Your task to perform on an android device: View the shopping cart on newegg.com. Image 0: 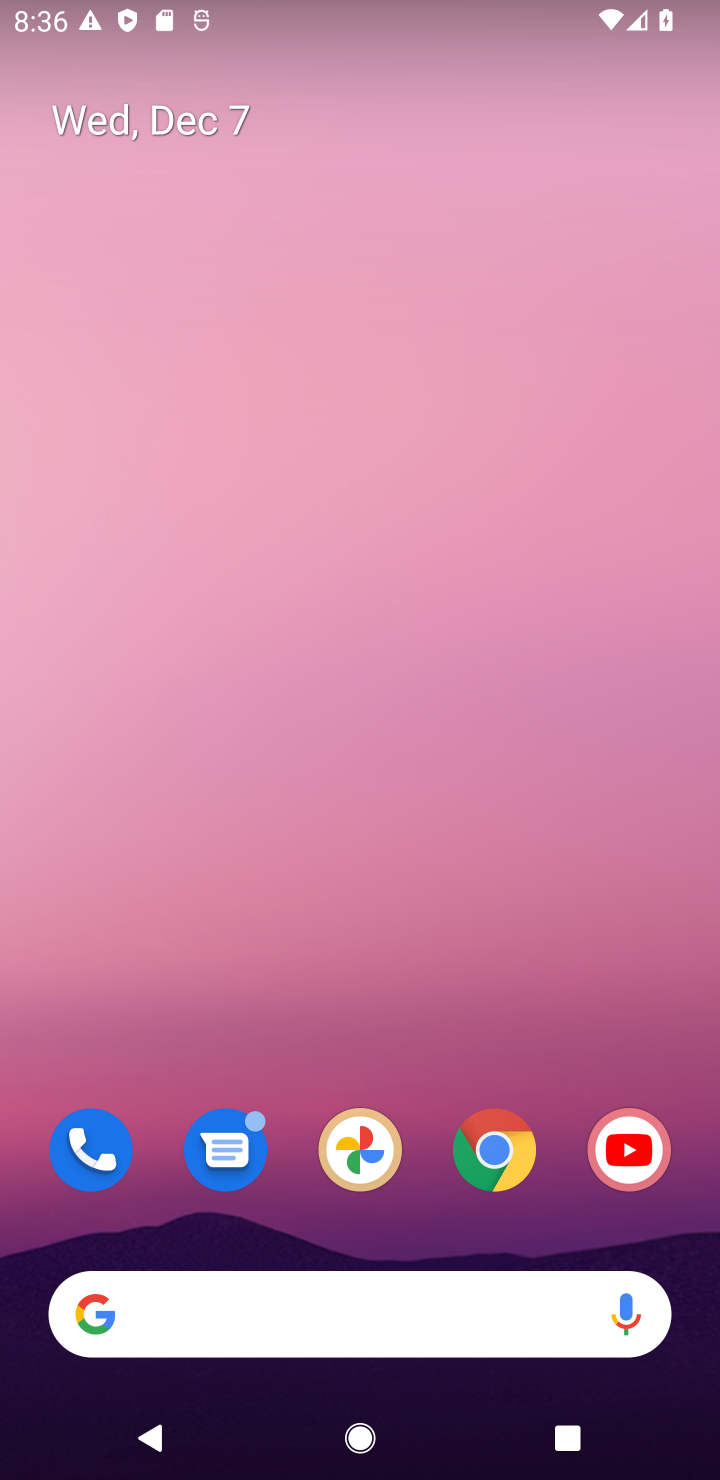
Step 0: click (512, 1154)
Your task to perform on an android device: View the shopping cart on newegg.com. Image 1: 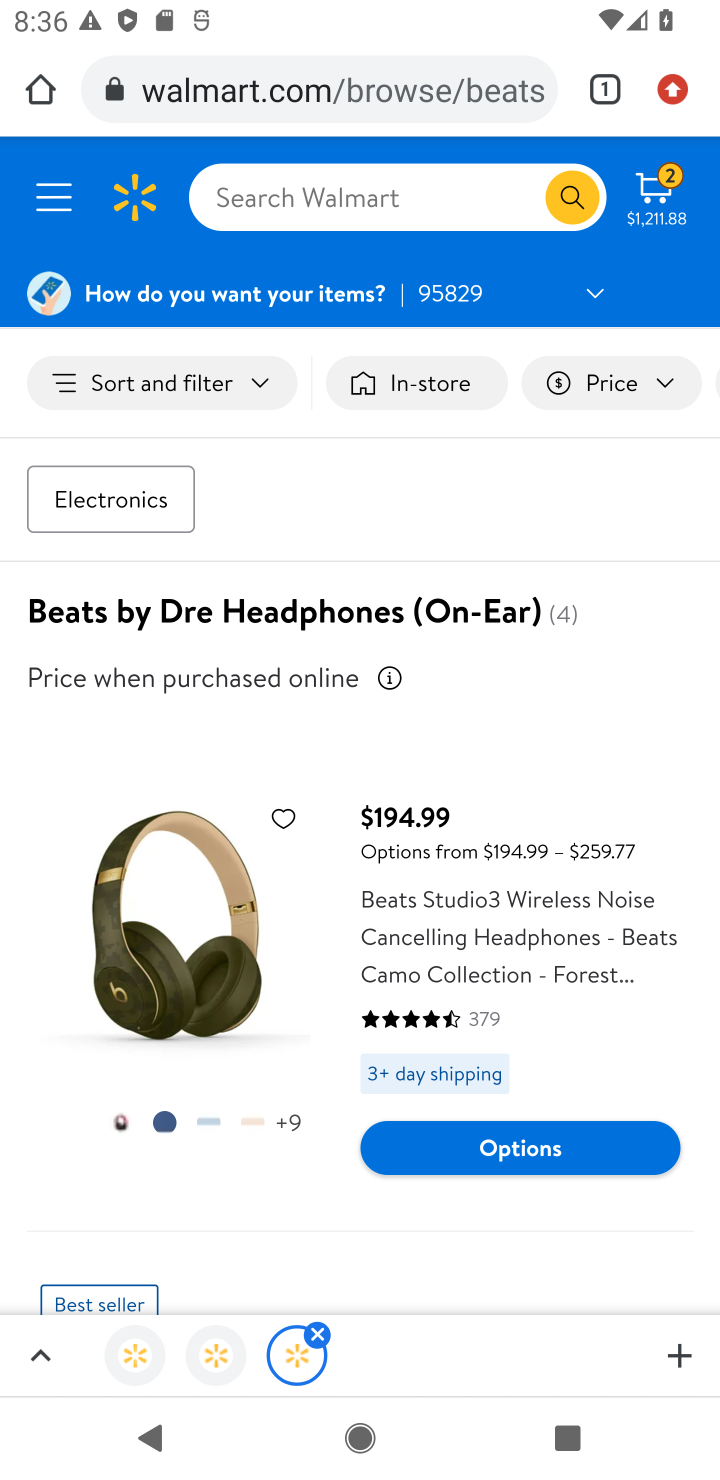
Step 1: click (361, 87)
Your task to perform on an android device: View the shopping cart on newegg.com. Image 2: 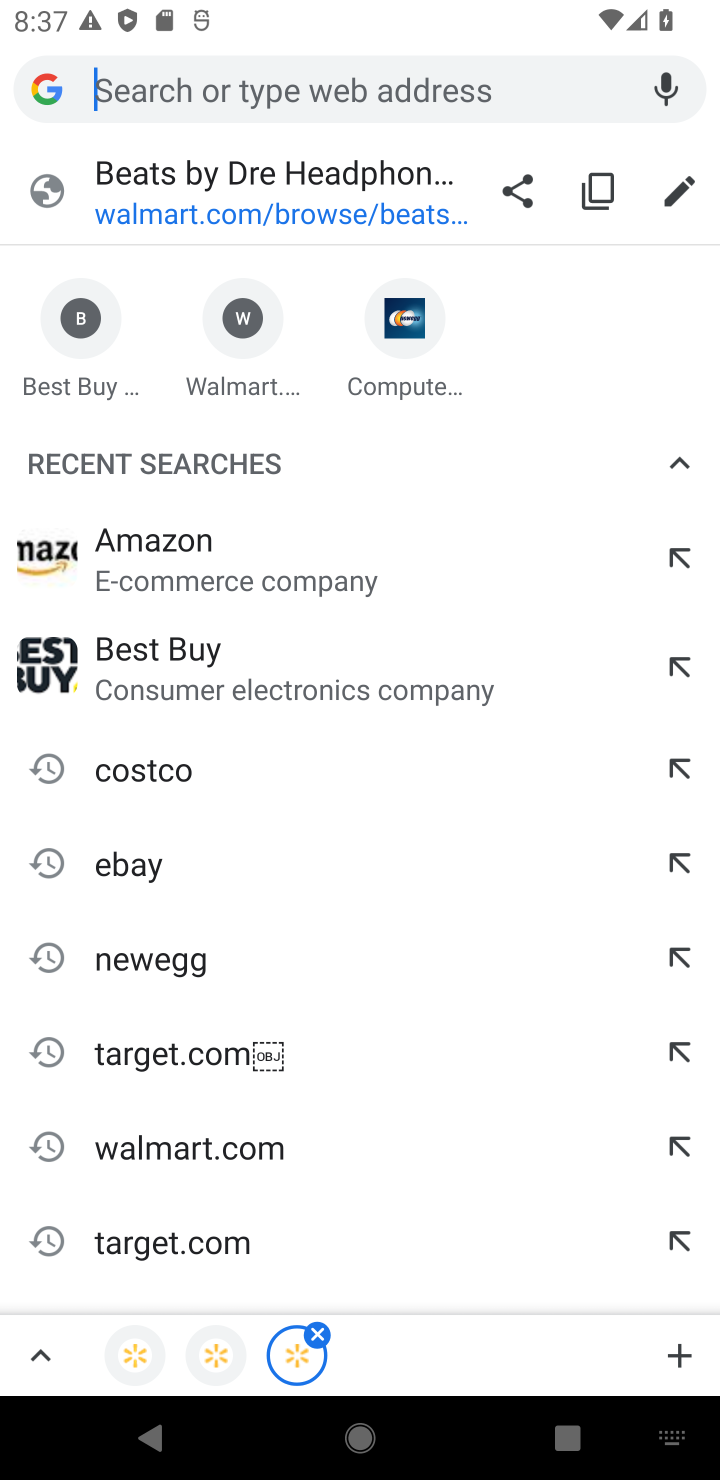
Step 2: click (203, 960)
Your task to perform on an android device: View the shopping cart on newegg.com. Image 3: 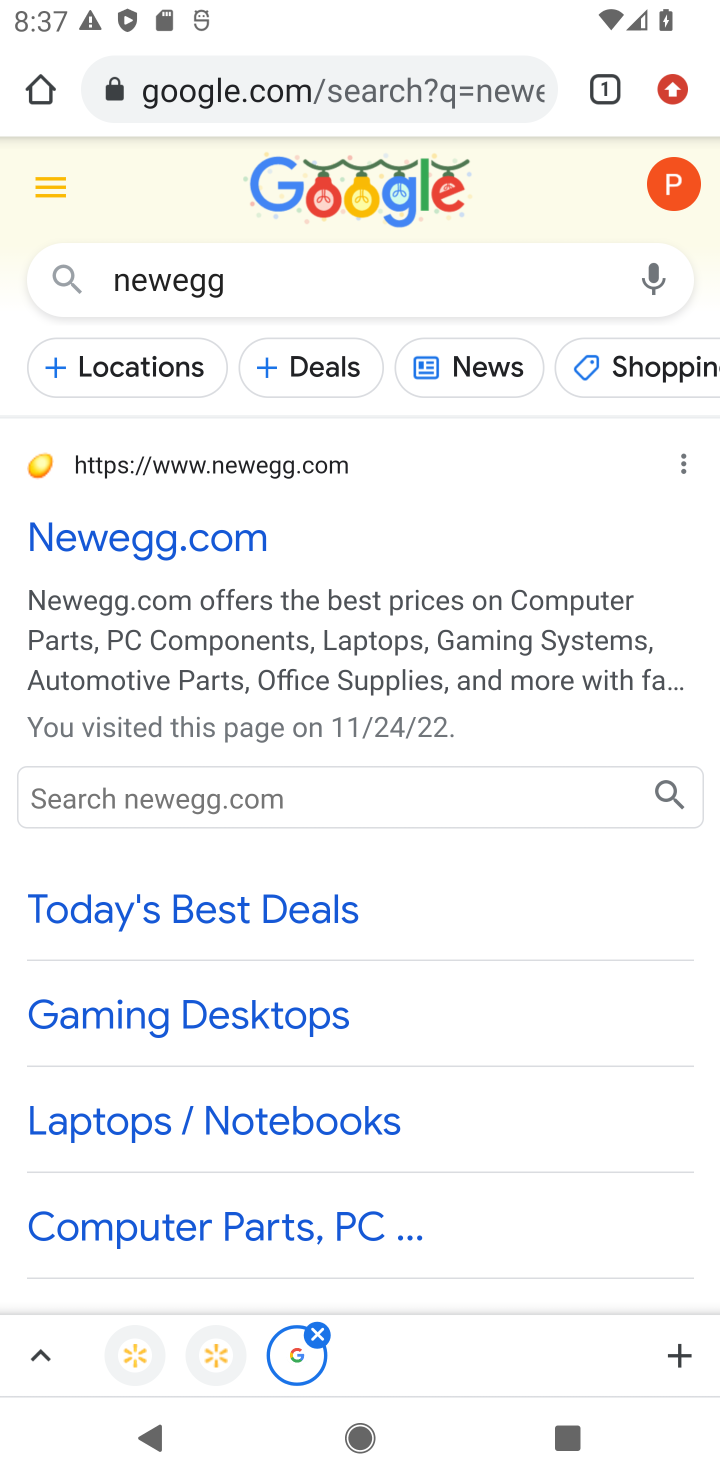
Step 3: click (198, 544)
Your task to perform on an android device: View the shopping cart on newegg.com. Image 4: 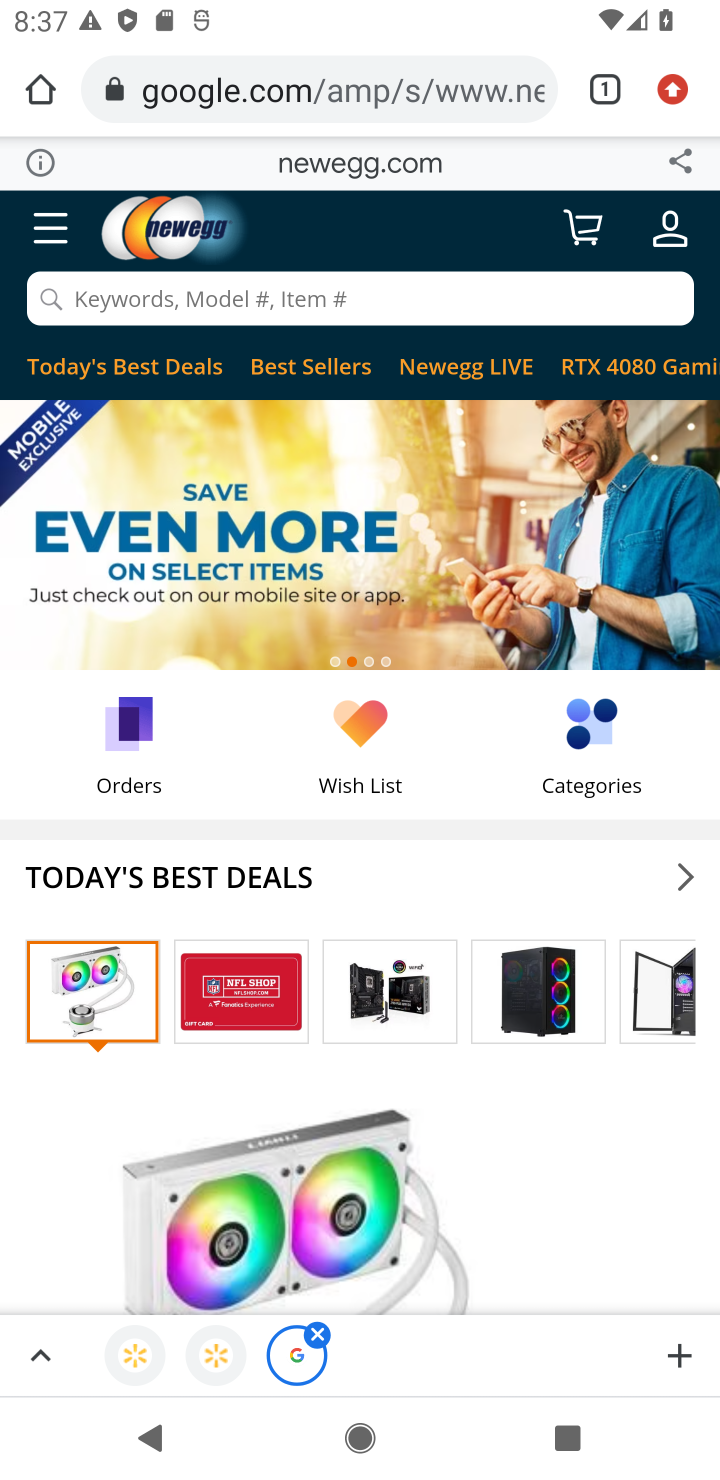
Step 4: click (593, 230)
Your task to perform on an android device: View the shopping cart on newegg.com. Image 5: 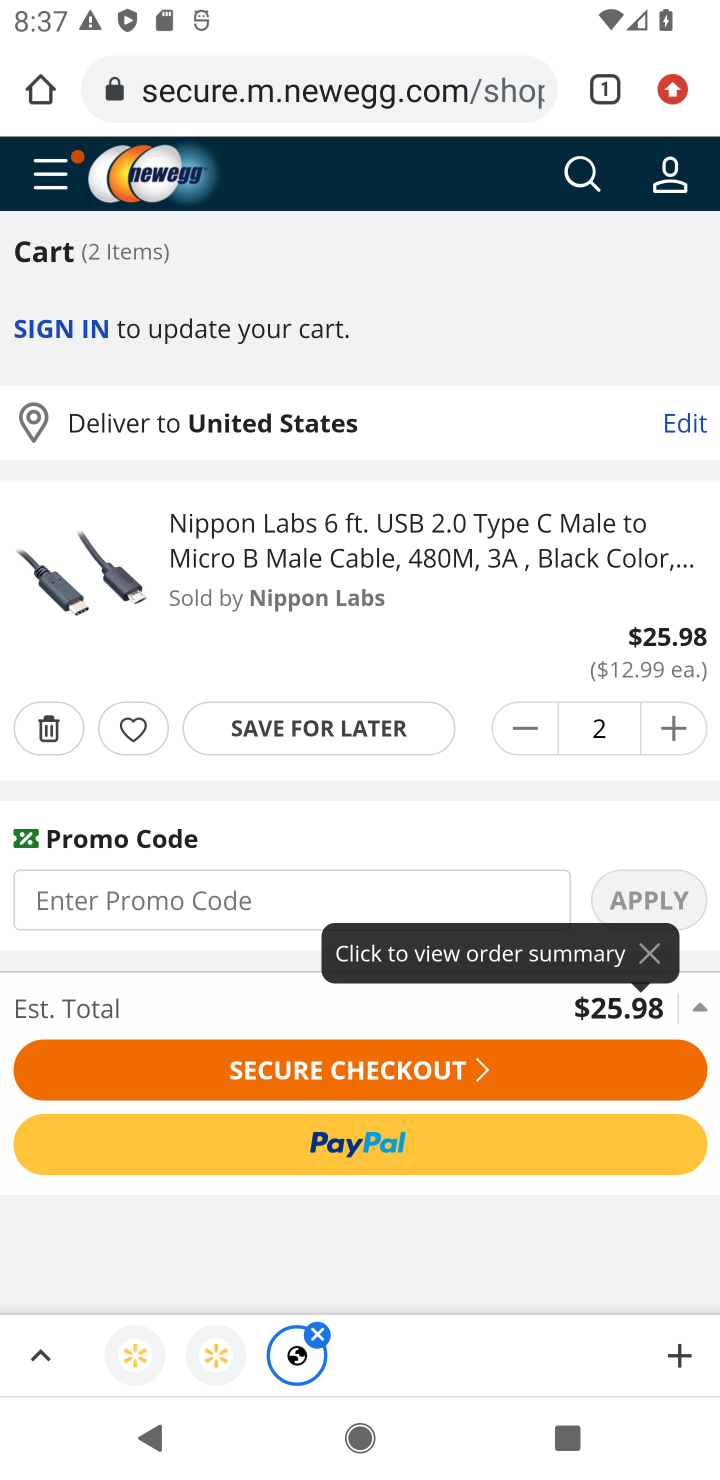
Step 5: task complete